Your task to perform on an android device: What is the news today? Image 0: 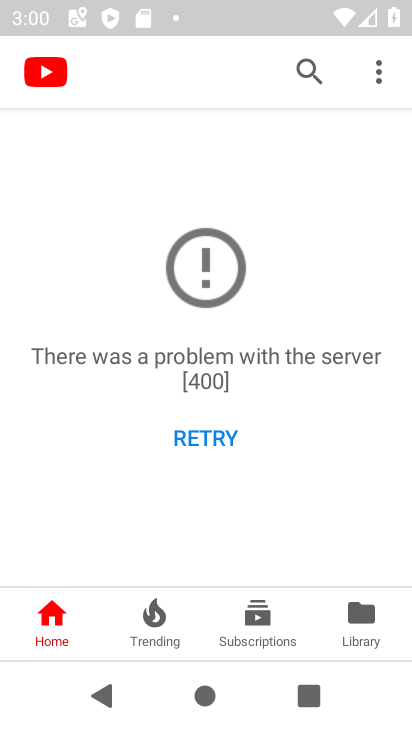
Step 0: press home button
Your task to perform on an android device: What is the news today? Image 1: 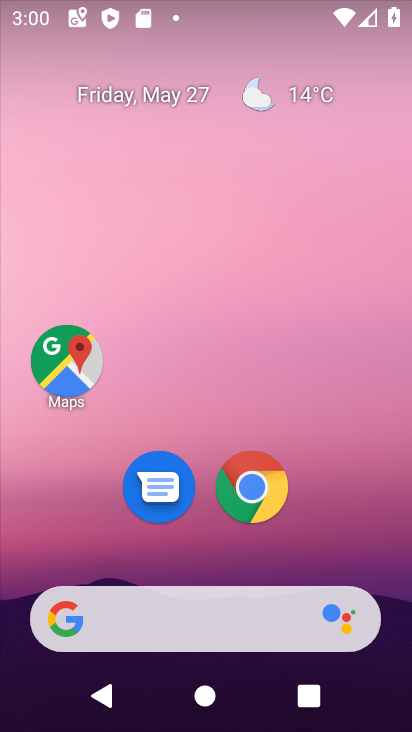
Step 1: click (264, 493)
Your task to perform on an android device: What is the news today? Image 2: 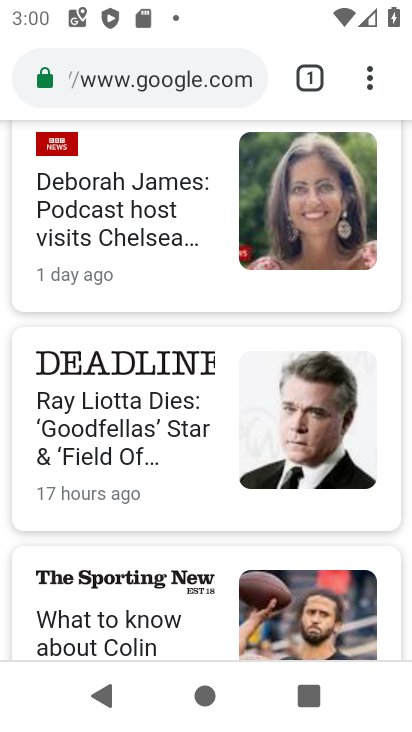
Step 2: click (169, 89)
Your task to perform on an android device: What is the news today? Image 3: 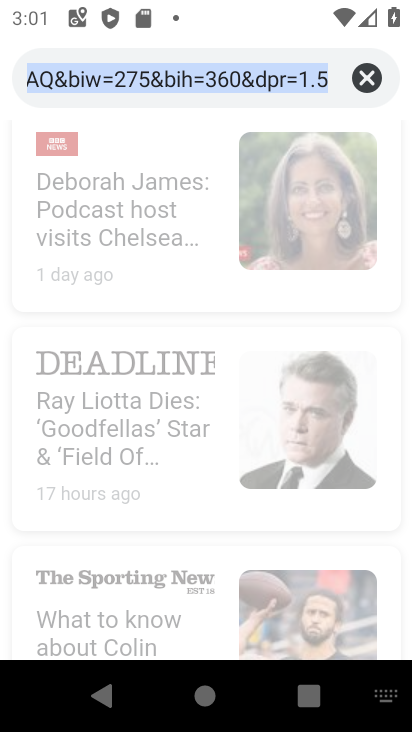
Step 3: click (386, 70)
Your task to perform on an android device: What is the news today? Image 4: 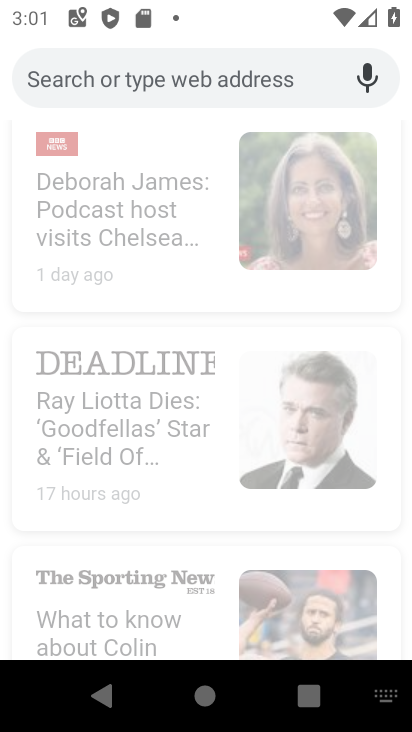
Step 4: type "What is the news today?"
Your task to perform on an android device: What is the news today? Image 5: 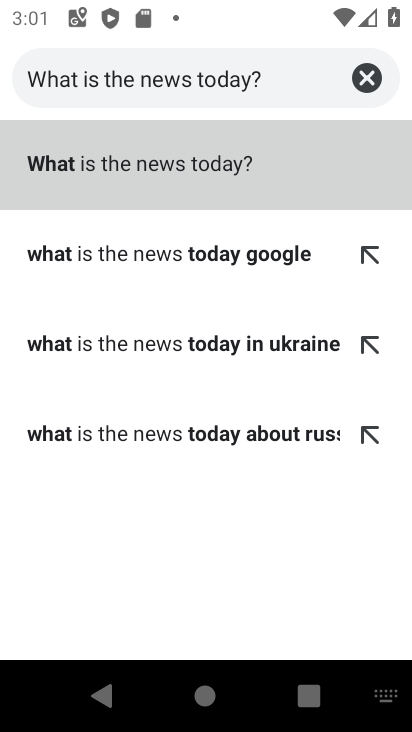
Step 5: click (114, 136)
Your task to perform on an android device: What is the news today? Image 6: 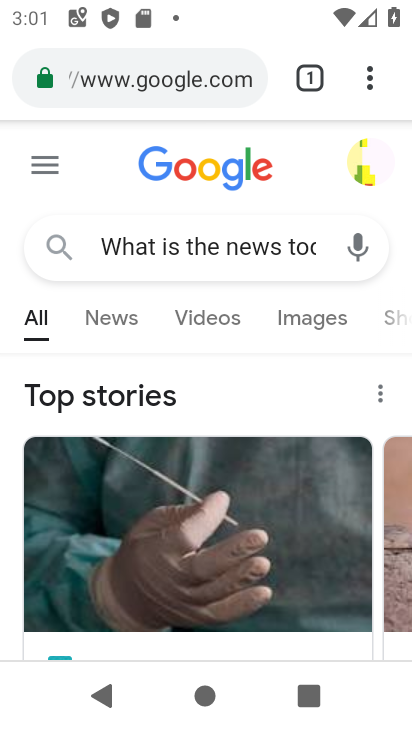
Step 6: task complete